Your task to perform on an android device: turn on improve location accuracy Image 0: 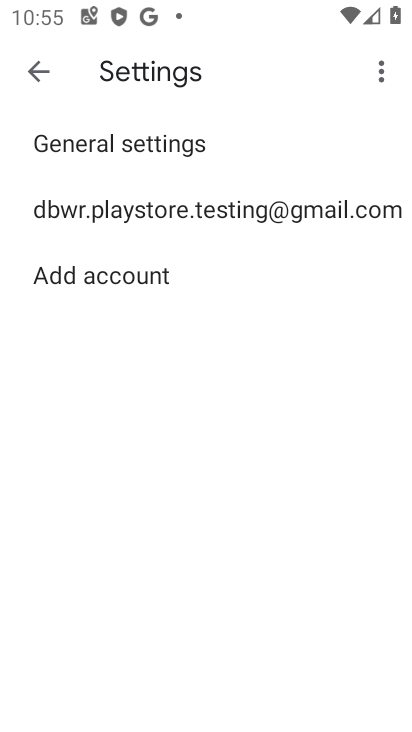
Step 0: press home button
Your task to perform on an android device: turn on improve location accuracy Image 1: 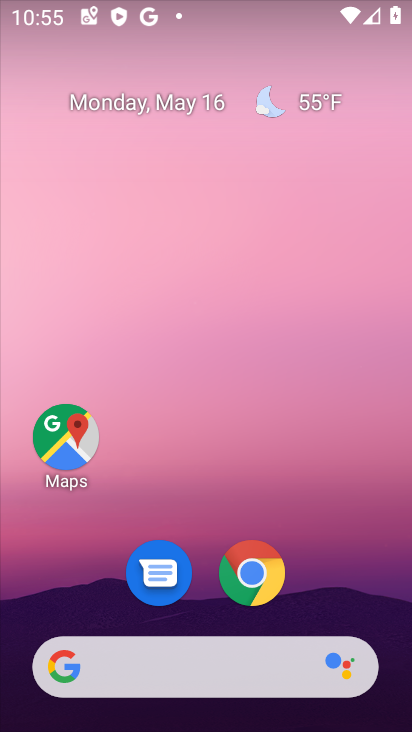
Step 1: drag from (359, 599) to (223, 35)
Your task to perform on an android device: turn on improve location accuracy Image 2: 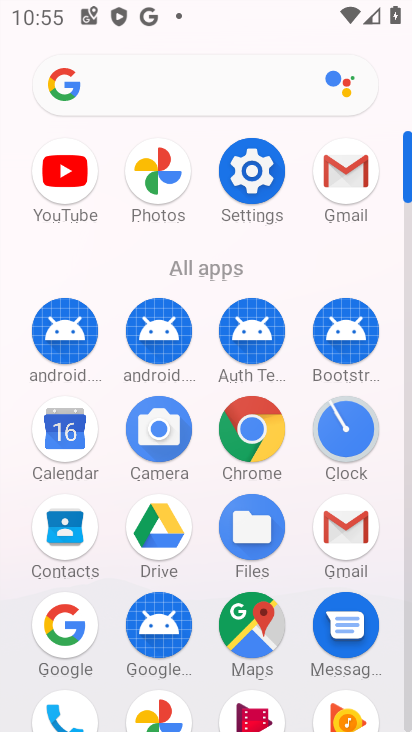
Step 2: click (243, 189)
Your task to perform on an android device: turn on improve location accuracy Image 3: 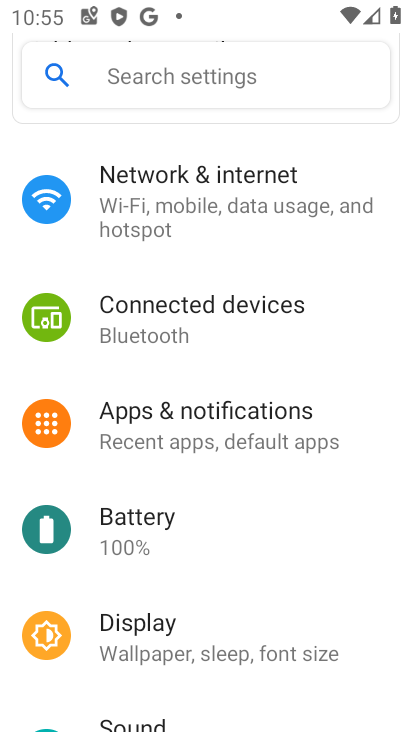
Step 3: drag from (236, 533) to (160, 161)
Your task to perform on an android device: turn on improve location accuracy Image 4: 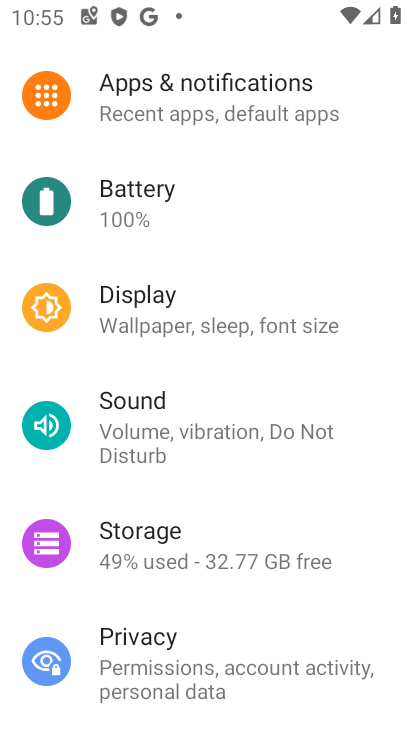
Step 4: drag from (232, 542) to (183, 300)
Your task to perform on an android device: turn on improve location accuracy Image 5: 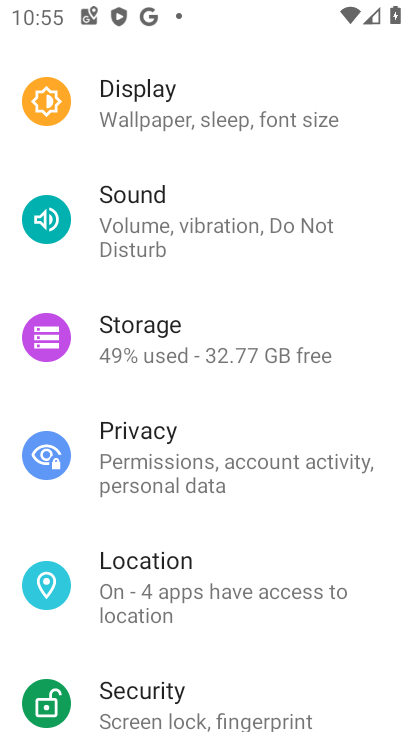
Step 5: click (138, 608)
Your task to perform on an android device: turn on improve location accuracy Image 6: 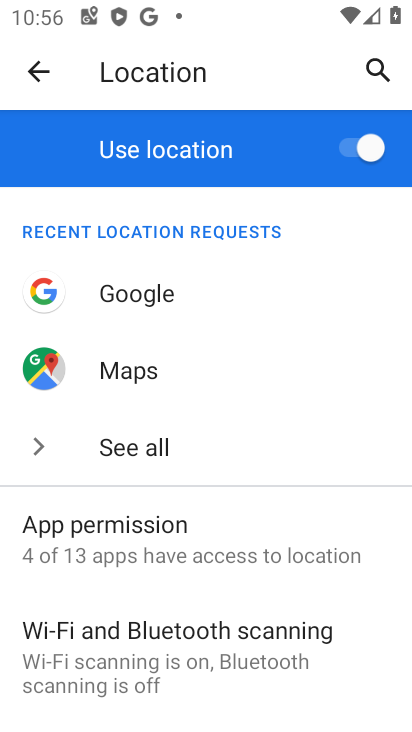
Step 6: drag from (226, 587) to (180, 381)
Your task to perform on an android device: turn on improve location accuracy Image 7: 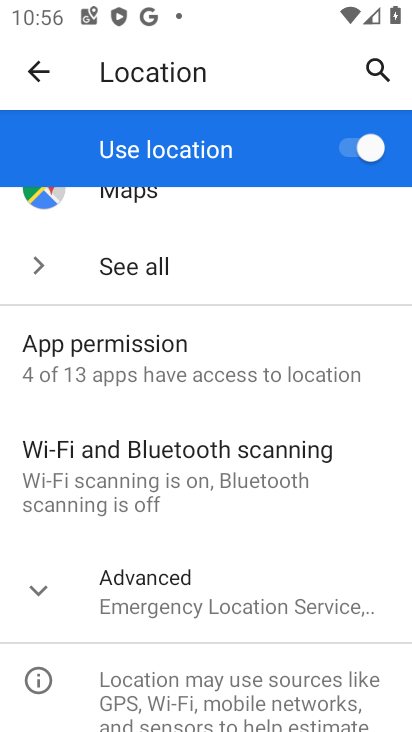
Step 7: click (155, 580)
Your task to perform on an android device: turn on improve location accuracy Image 8: 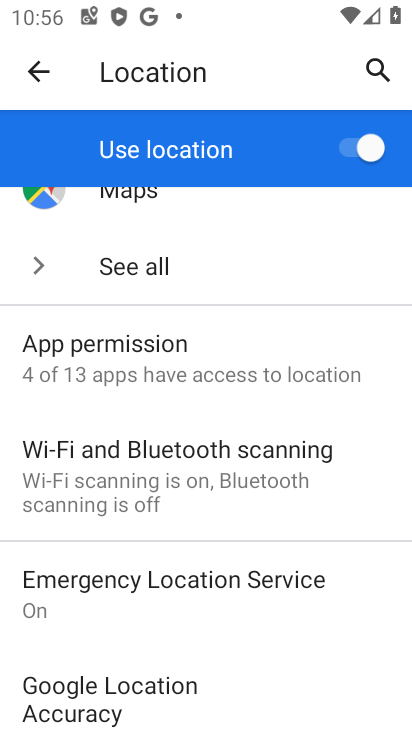
Step 8: drag from (220, 618) to (113, 325)
Your task to perform on an android device: turn on improve location accuracy Image 9: 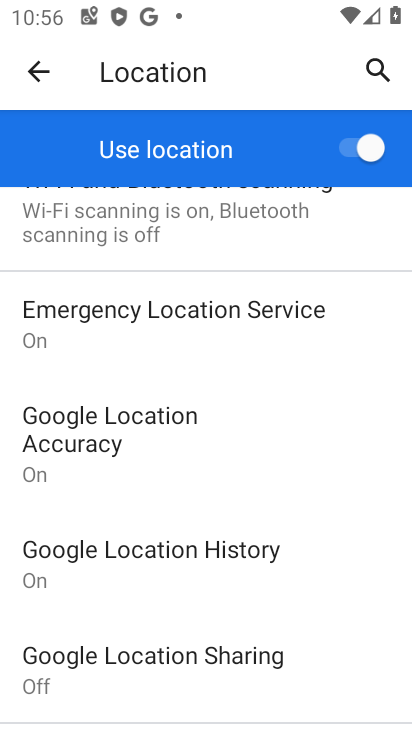
Step 9: click (112, 442)
Your task to perform on an android device: turn on improve location accuracy Image 10: 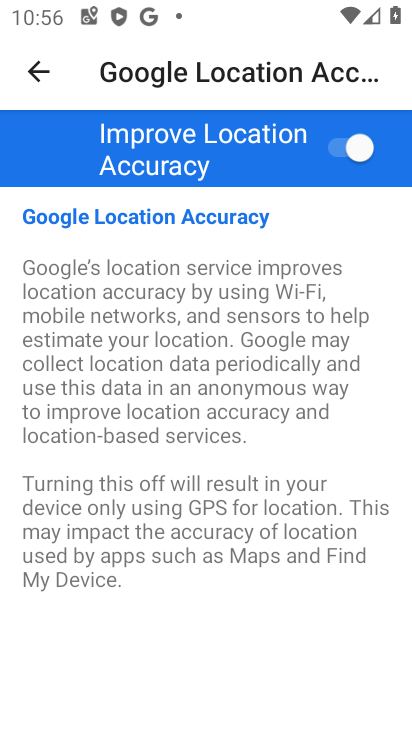
Step 10: task complete